Your task to perform on an android device: Open internet settings Image 0: 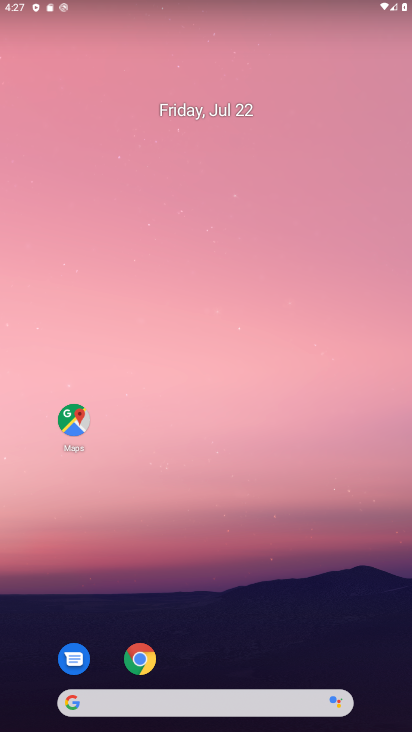
Step 0: drag from (245, 420) to (293, 6)
Your task to perform on an android device: Open internet settings Image 1: 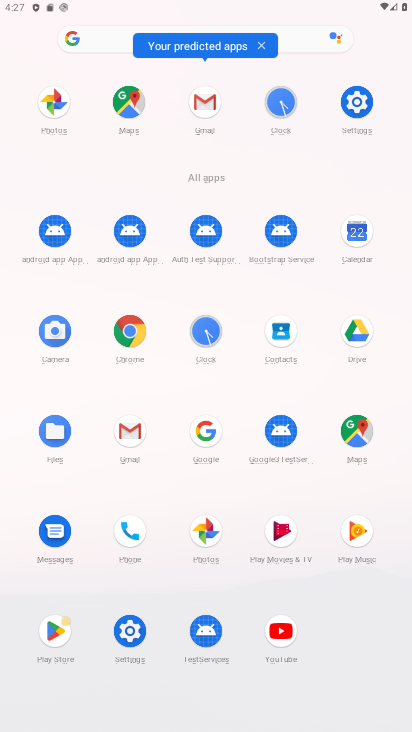
Step 1: click (359, 94)
Your task to perform on an android device: Open internet settings Image 2: 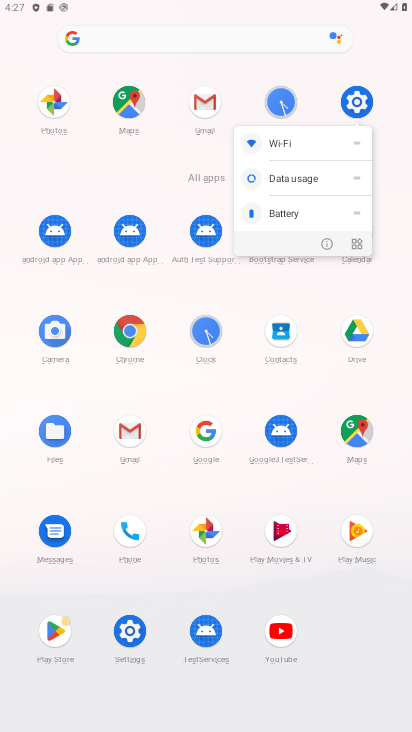
Step 2: click (354, 103)
Your task to perform on an android device: Open internet settings Image 3: 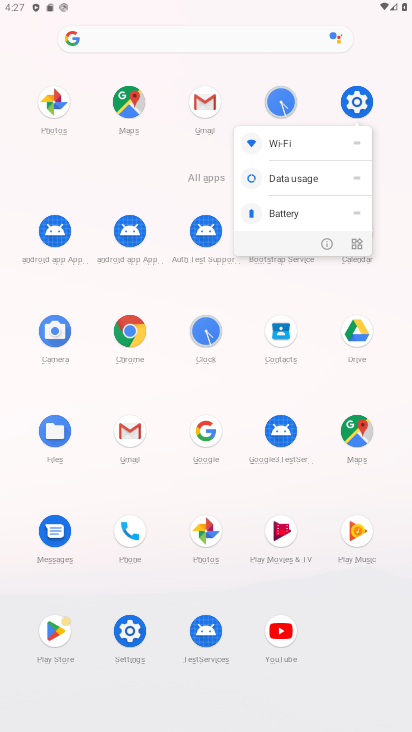
Step 3: click (363, 104)
Your task to perform on an android device: Open internet settings Image 4: 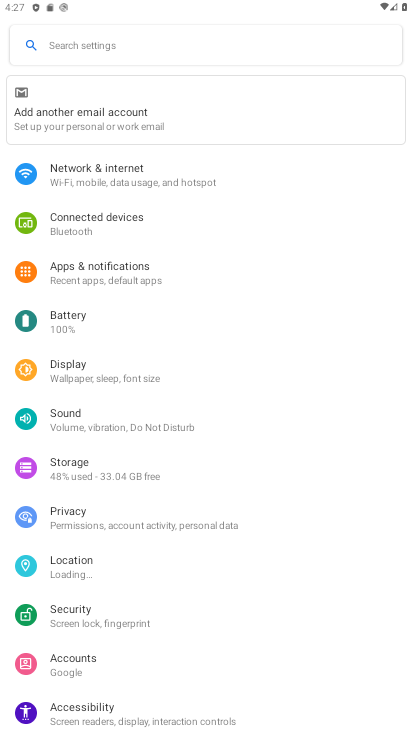
Step 4: click (70, 366)
Your task to perform on an android device: Open internet settings Image 5: 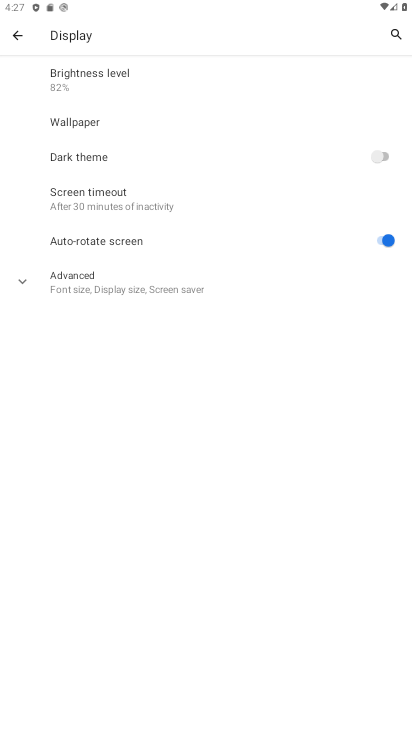
Step 5: click (112, 281)
Your task to perform on an android device: Open internet settings Image 6: 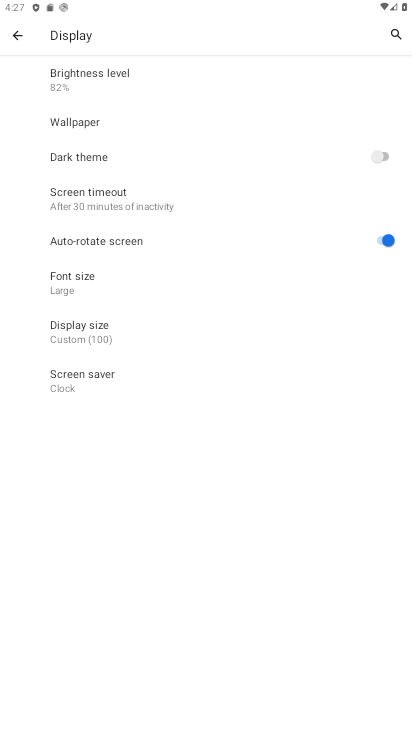
Step 6: click (110, 337)
Your task to perform on an android device: Open internet settings Image 7: 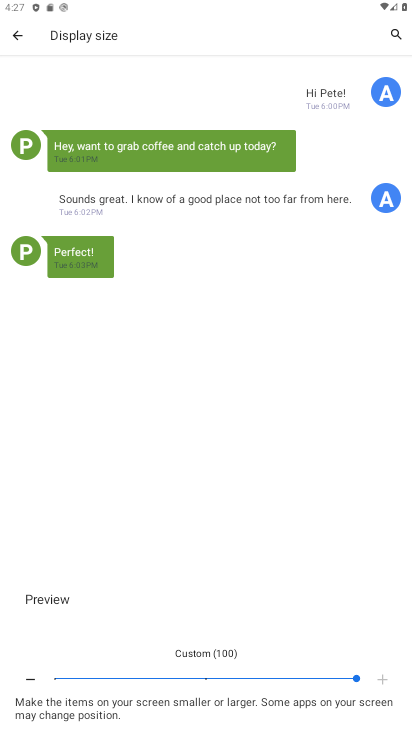
Step 7: click (203, 679)
Your task to perform on an android device: Open internet settings Image 8: 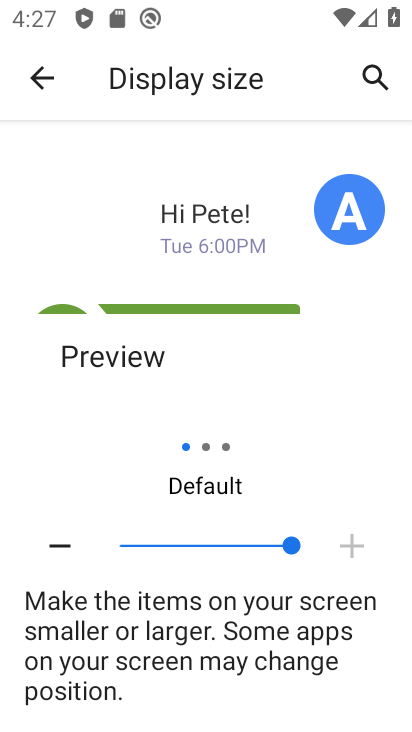
Step 8: click (44, 73)
Your task to perform on an android device: Open internet settings Image 9: 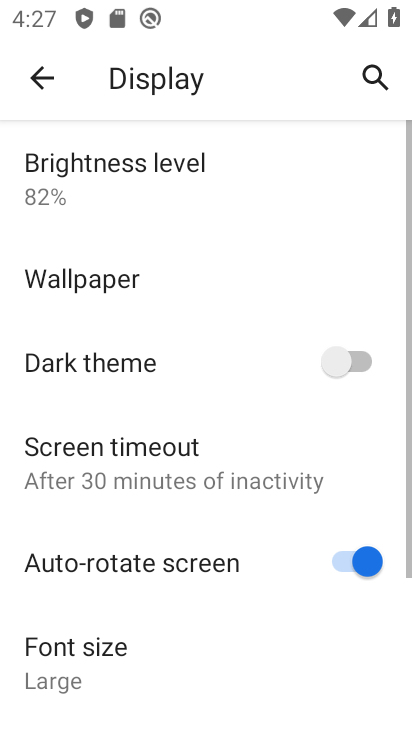
Step 9: click (44, 73)
Your task to perform on an android device: Open internet settings Image 10: 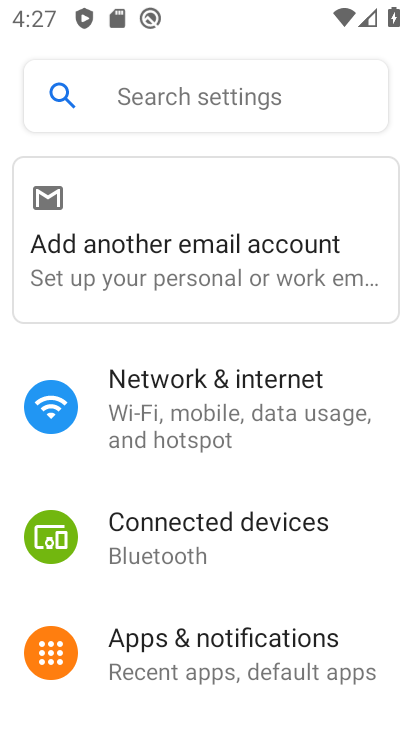
Step 10: click (205, 400)
Your task to perform on an android device: Open internet settings Image 11: 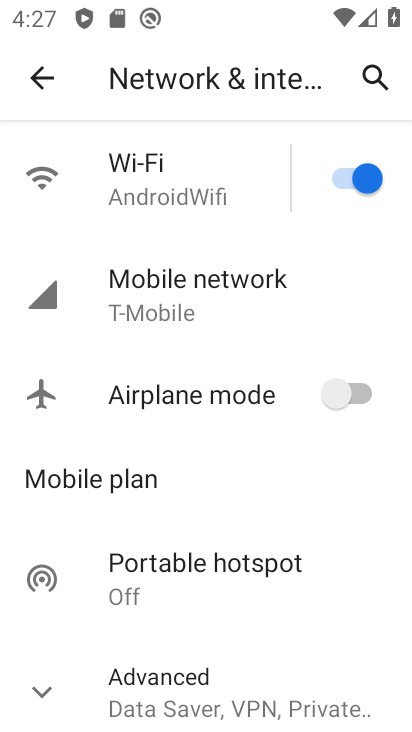
Step 11: task complete